Your task to perform on an android device: Open the web browser Image 0: 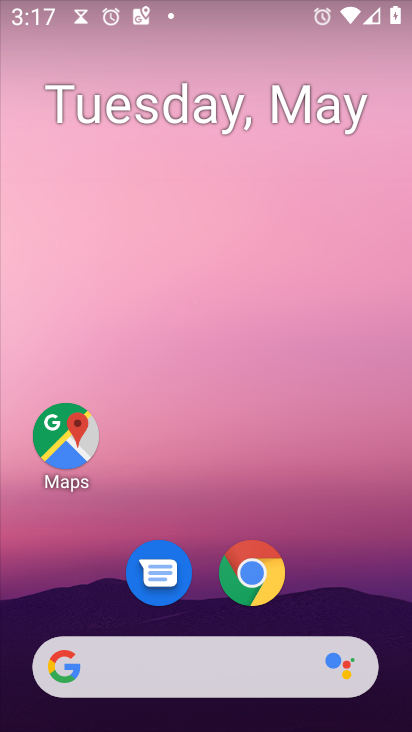
Step 0: drag from (328, 505) to (276, 32)
Your task to perform on an android device: Open the web browser Image 1: 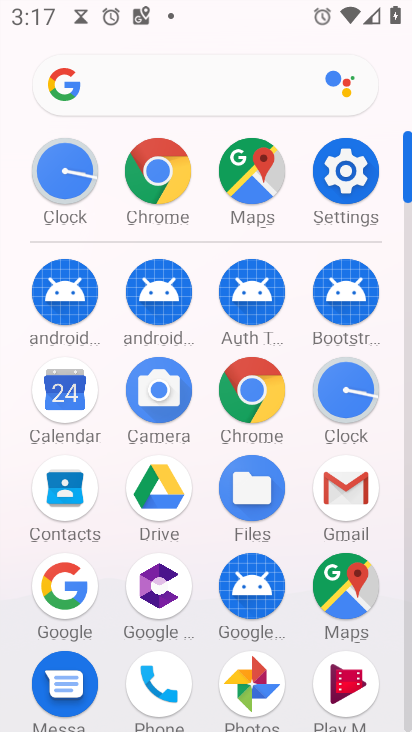
Step 1: click (248, 385)
Your task to perform on an android device: Open the web browser Image 2: 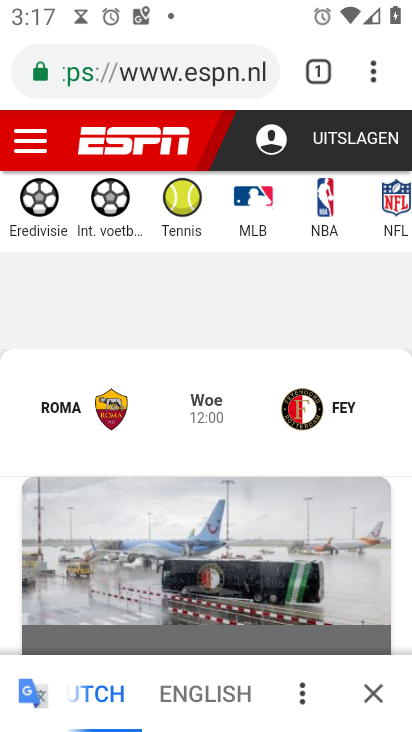
Step 2: task complete